Your task to perform on an android device: add a contact Image 0: 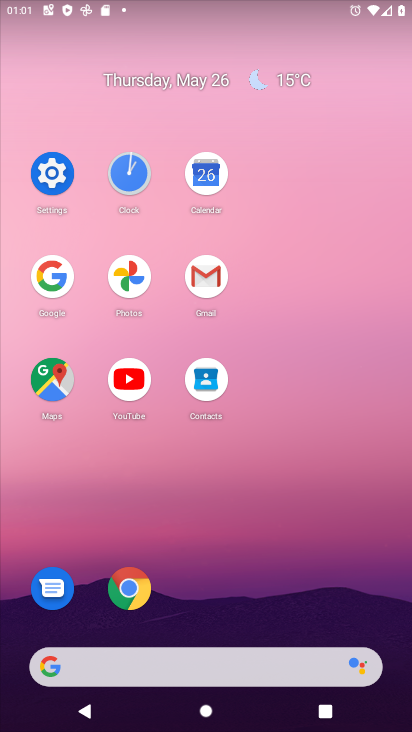
Step 0: click (303, 199)
Your task to perform on an android device: add a contact Image 1: 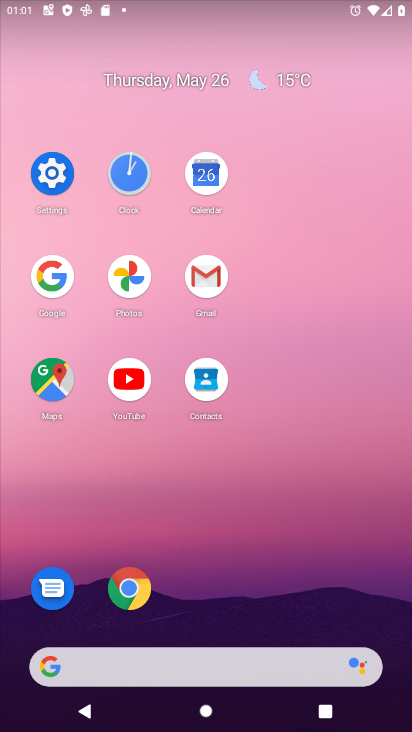
Step 1: drag from (290, 607) to (337, 176)
Your task to perform on an android device: add a contact Image 2: 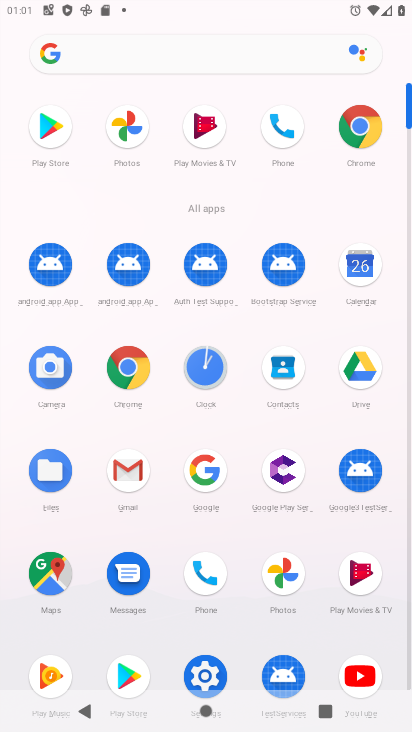
Step 2: drag from (218, 592) to (256, 431)
Your task to perform on an android device: add a contact Image 3: 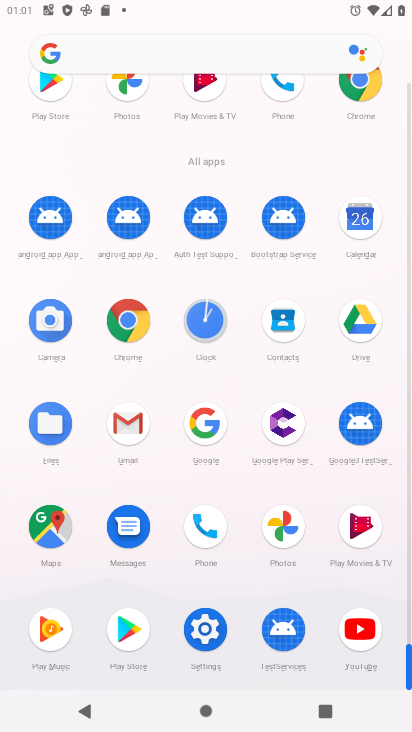
Step 3: click (283, 313)
Your task to perform on an android device: add a contact Image 4: 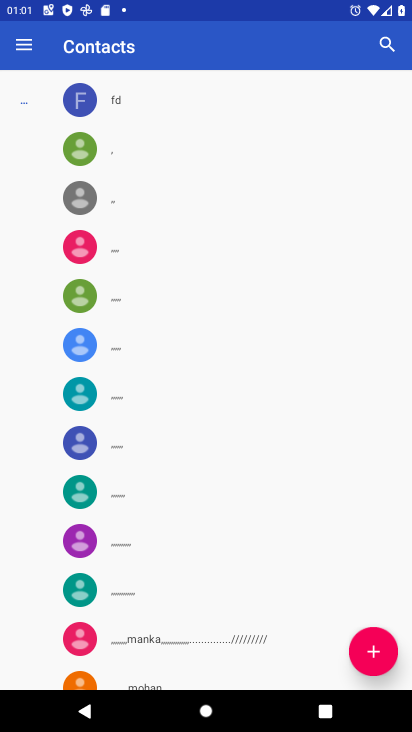
Step 4: click (381, 652)
Your task to perform on an android device: add a contact Image 5: 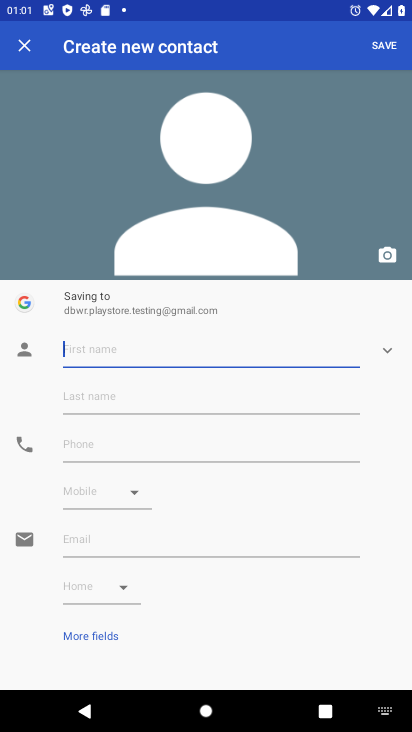
Step 5: type "yyttrr"
Your task to perform on an android device: add a contact Image 6: 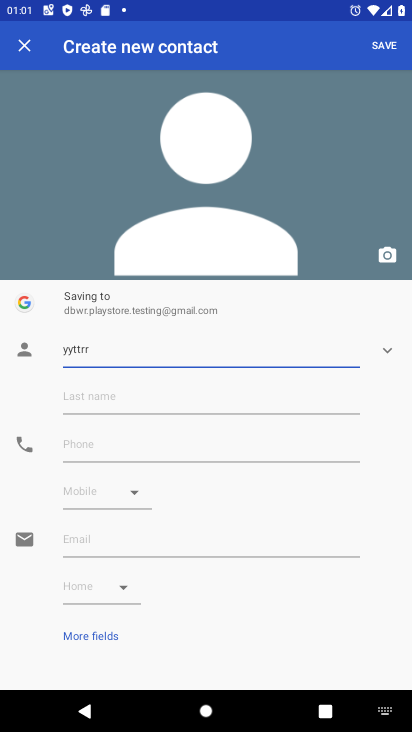
Step 6: click (138, 447)
Your task to perform on an android device: add a contact Image 7: 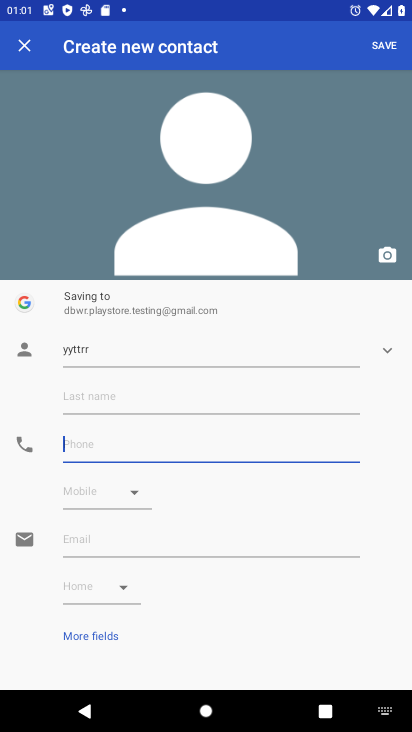
Step 7: type "7777777789"
Your task to perform on an android device: add a contact Image 8: 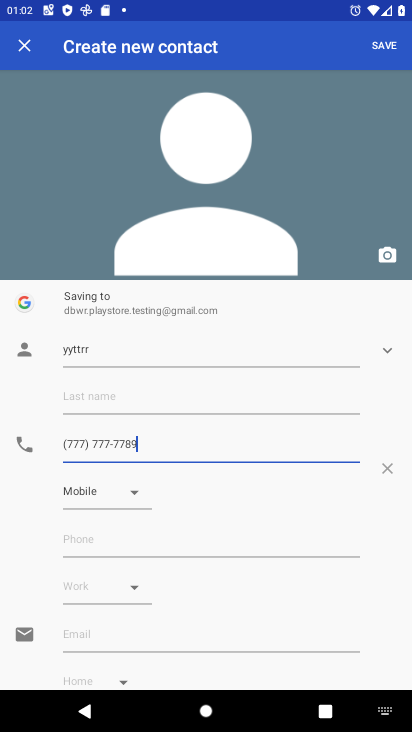
Step 8: click (385, 48)
Your task to perform on an android device: add a contact Image 9: 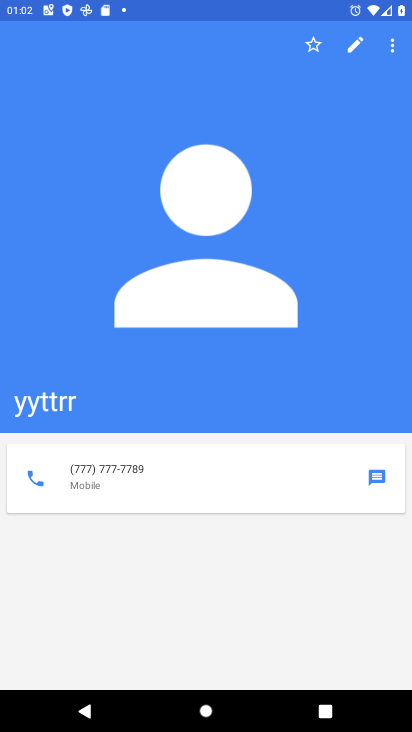
Step 9: task complete